Your task to perform on an android device: open a new tab in the chrome app Image 0: 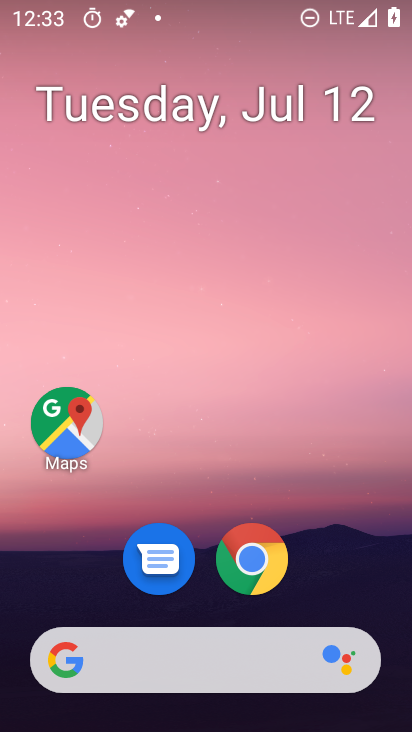
Step 0: click (260, 561)
Your task to perform on an android device: open a new tab in the chrome app Image 1: 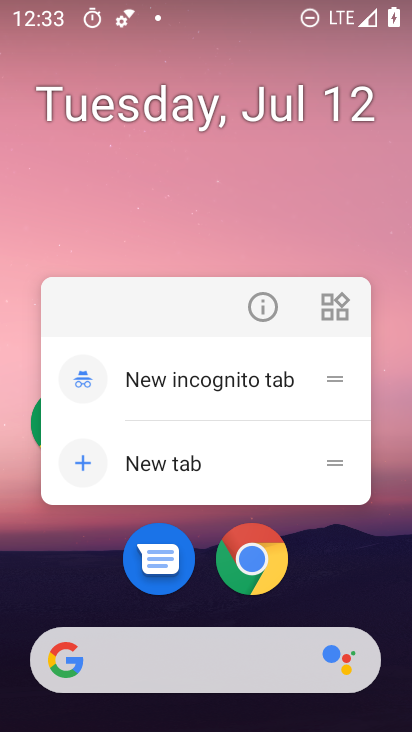
Step 1: click (248, 565)
Your task to perform on an android device: open a new tab in the chrome app Image 2: 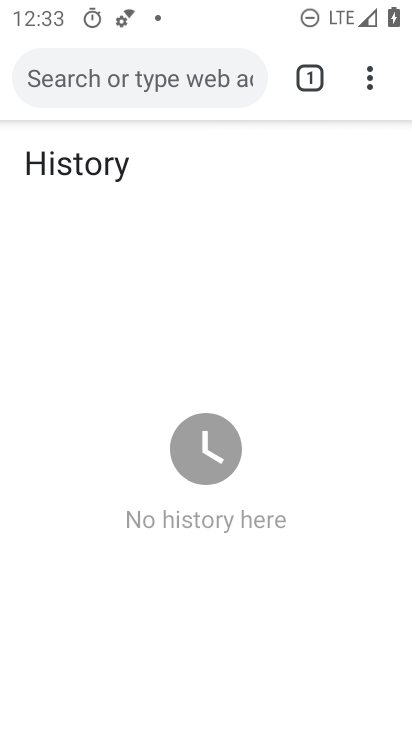
Step 2: click (300, 79)
Your task to perform on an android device: open a new tab in the chrome app Image 3: 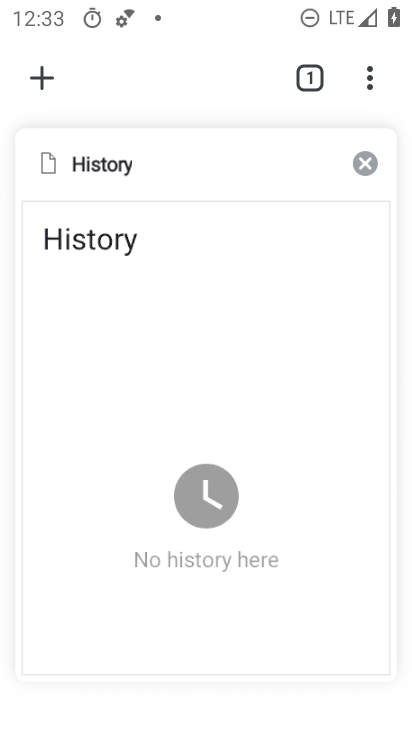
Step 3: click (53, 70)
Your task to perform on an android device: open a new tab in the chrome app Image 4: 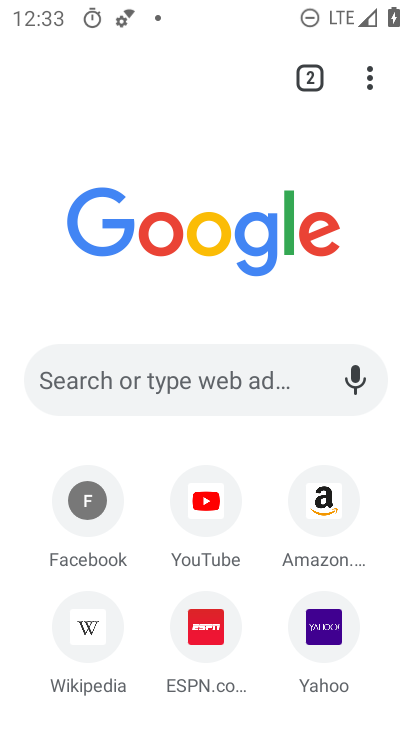
Step 4: task complete